Your task to perform on an android device: Search for Italian restaurants on Maps Image 0: 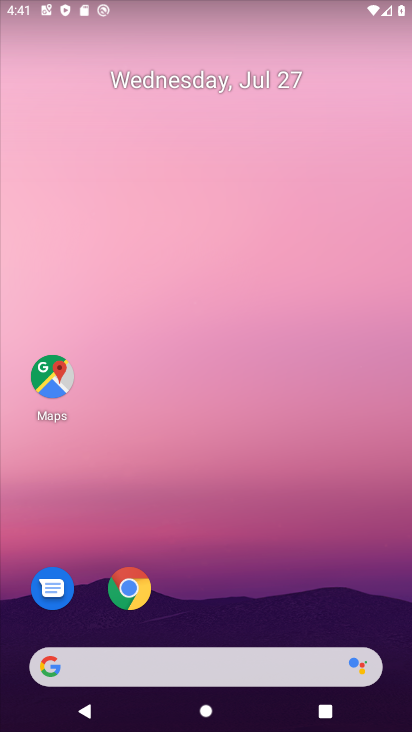
Step 0: drag from (243, 678) to (231, 272)
Your task to perform on an android device: Search for Italian restaurants on Maps Image 1: 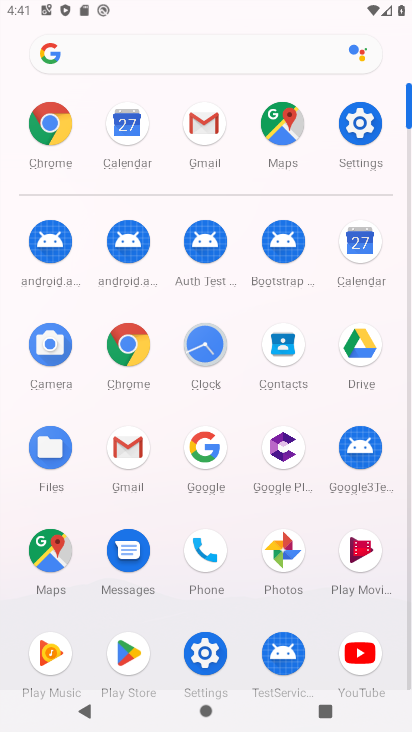
Step 1: click (43, 543)
Your task to perform on an android device: Search for Italian restaurants on Maps Image 2: 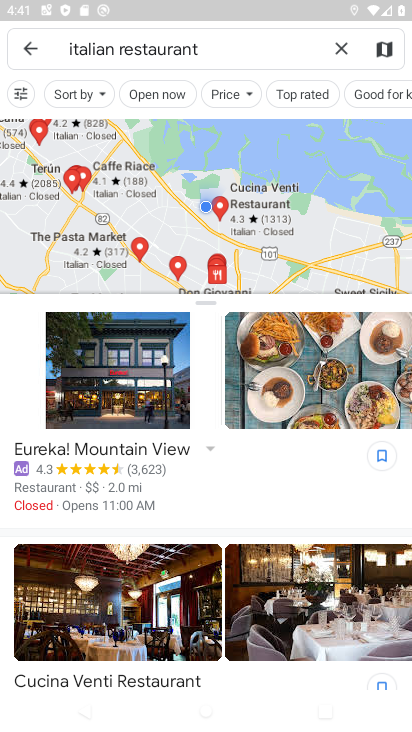
Step 2: task complete